Your task to perform on an android device: choose inbox layout in the gmail app Image 0: 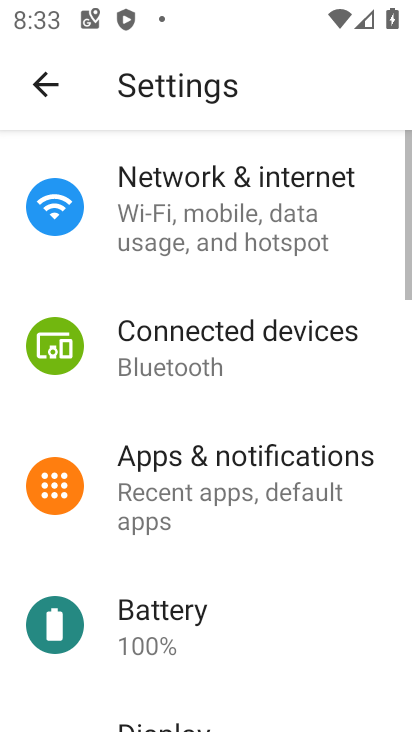
Step 0: press back button
Your task to perform on an android device: choose inbox layout in the gmail app Image 1: 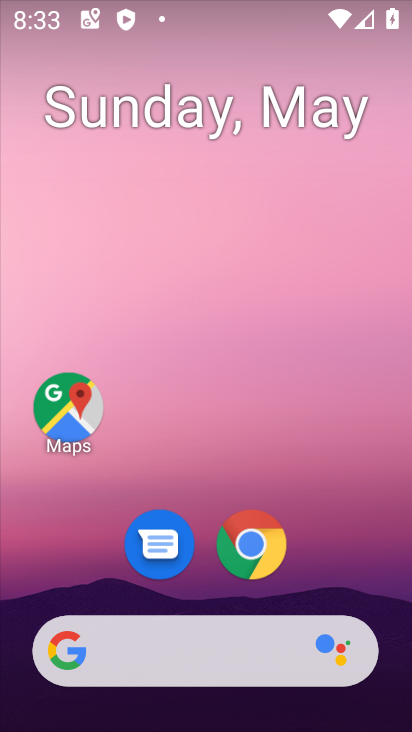
Step 1: drag from (339, 547) to (222, 11)
Your task to perform on an android device: choose inbox layout in the gmail app Image 2: 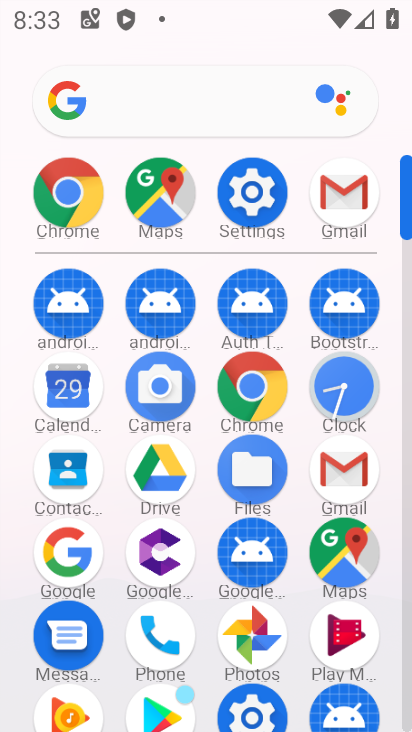
Step 2: drag from (9, 584) to (23, 150)
Your task to perform on an android device: choose inbox layout in the gmail app Image 3: 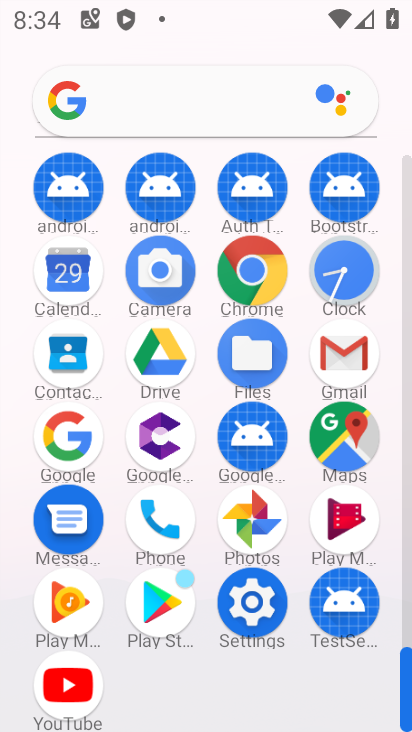
Step 3: click (345, 347)
Your task to perform on an android device: choose inbox layout in the gmail app Image 4: 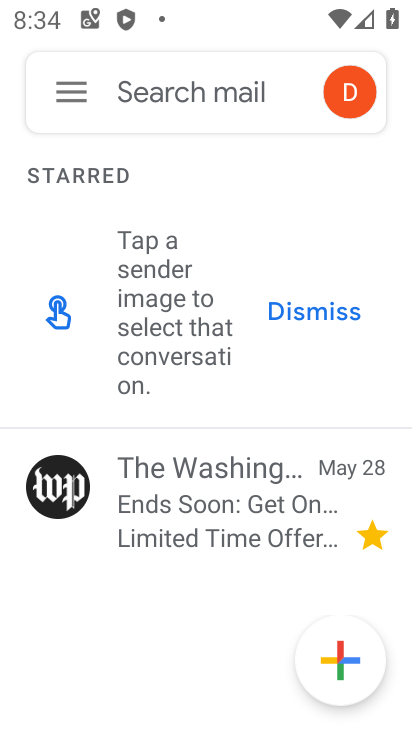
Step 4: click (73, 82)
Your task to perform on an android device: choose inbox layout in the gmail app Image 5: 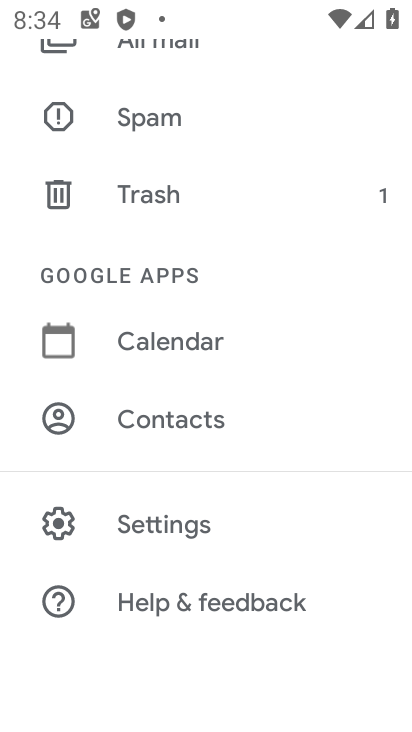
Step 5: click (162, 540)
Your task to perform on an android device: choose inbox layout in the gmail app Image 6: 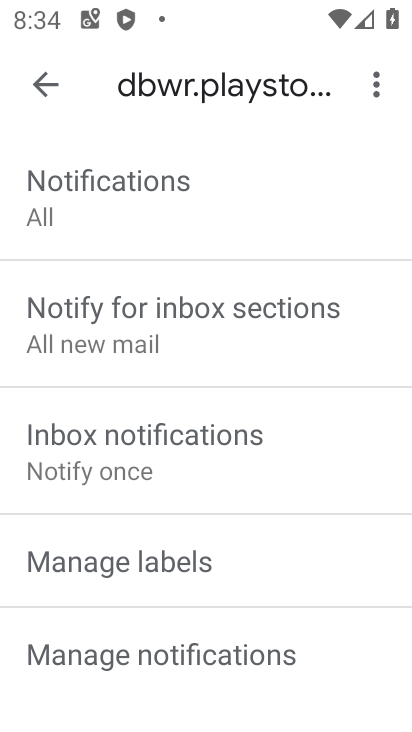
Step 6: drag from (254, 657) to (262, 132)
Your task to perform on an android device: choose inbox layout in the gmail app Image 7: 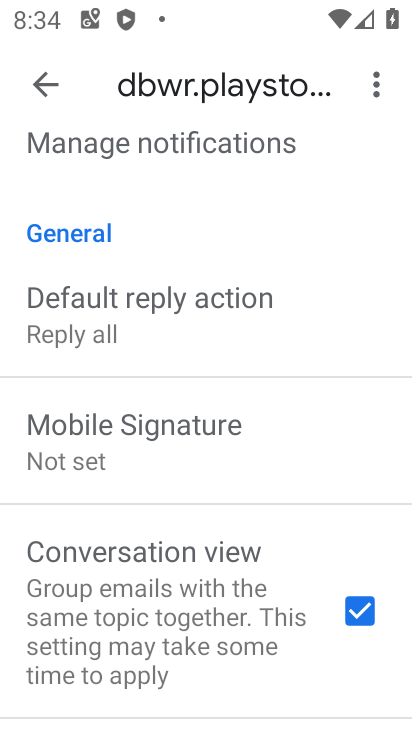
Step 7: drag from (254, 375) to (225, 731)
Your task to perform on an android device: choose inbox layout in the gmail app Image 8: 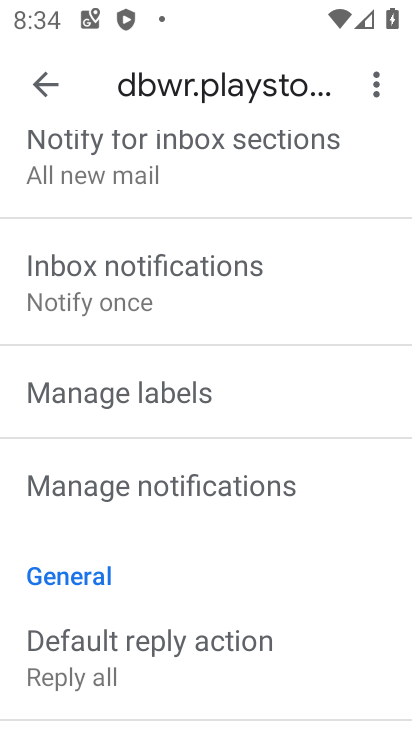
Step 8: drag from (259, 263) to (227, 647)
Your task to perform on an android device: choose inbox layout in the gmail app Image 9: 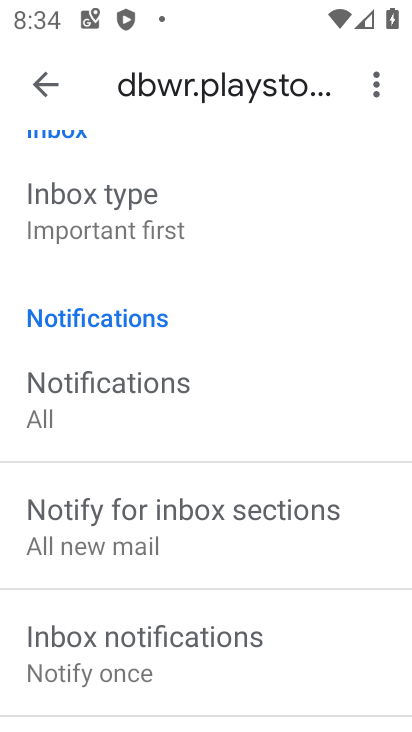
Step 9: click (169, 210)
Your task to perform on an android device: choose inbox layout in the gmail app Image 10: 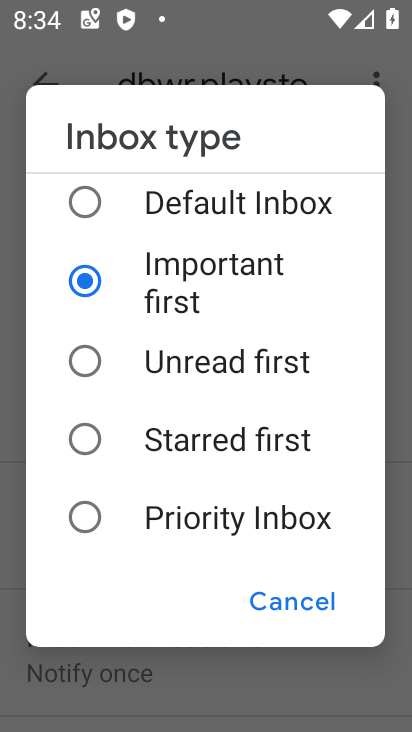
Step 10: click (174, 195)
Your task to perform on an android device: choose inbox layout in the gmail app Image 11: 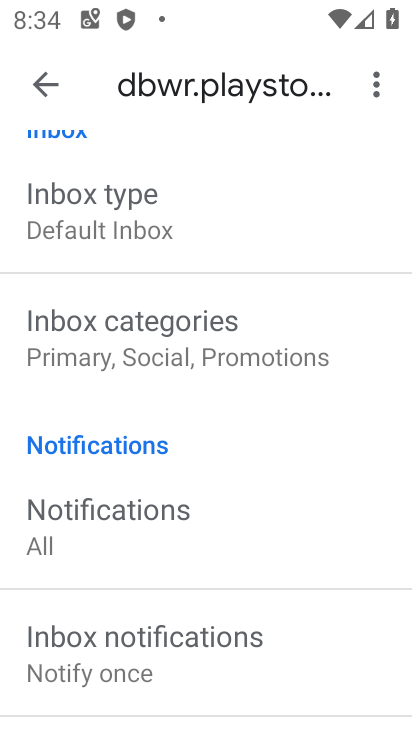
Step 11: task complete